Your task to perform on an android device: find snoozed emails in the gmail app Image 0: 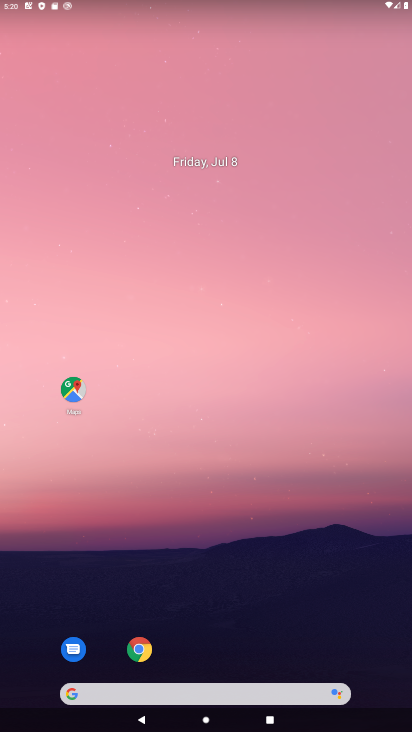
Step 0: drag from (312, 614) to (264, 3)
Your task to perform on an android device: find snoozed emails in the gmail app Image 1: 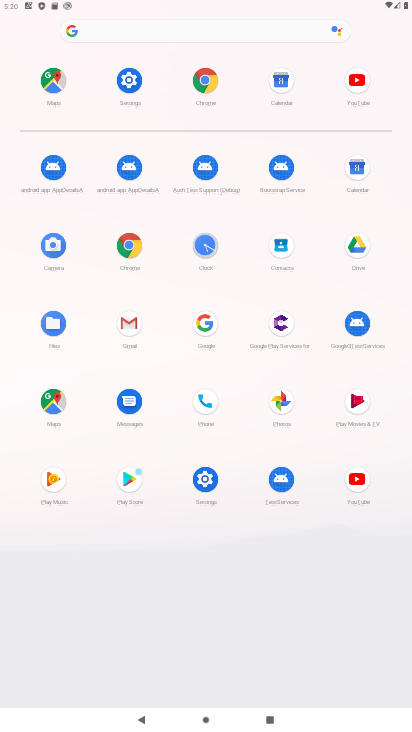
Step 1: click (135, 319)
Your task to perform on an android device: find snoozed emails in the gmail app Image 2: 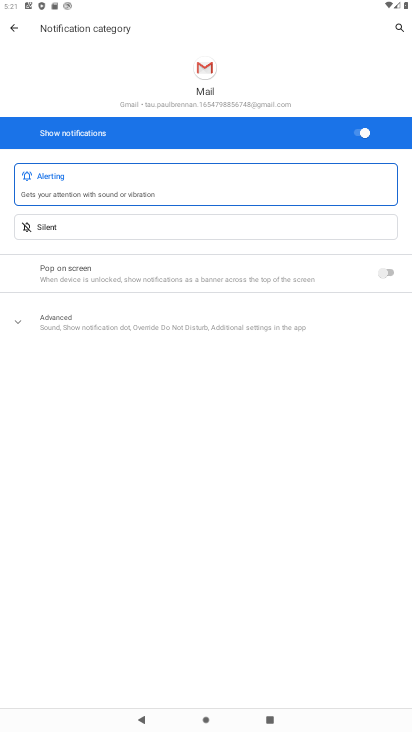
Step 2: click (13, 24)
Your task to perform on an android device: find snoozed emails in the gmail app Image 3: 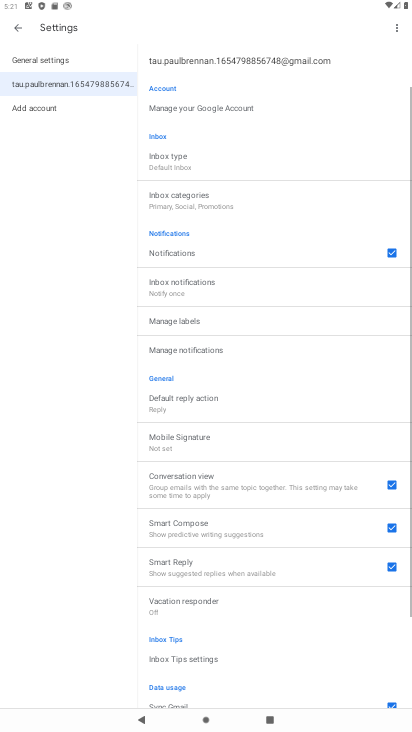
Step 3: click (13, 24)
Your task to perform on an android device: find snoozed emails in the gmail app Image 4: 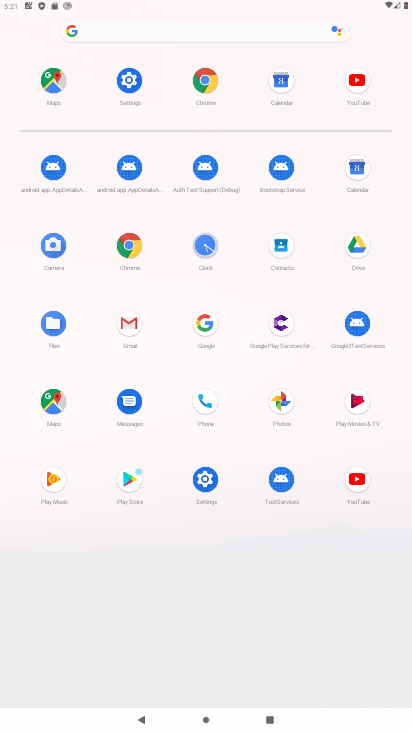
Step 4: click (136, 321)
Your task to perform on an android device: find snoozed emails in the gmail app Image 5: 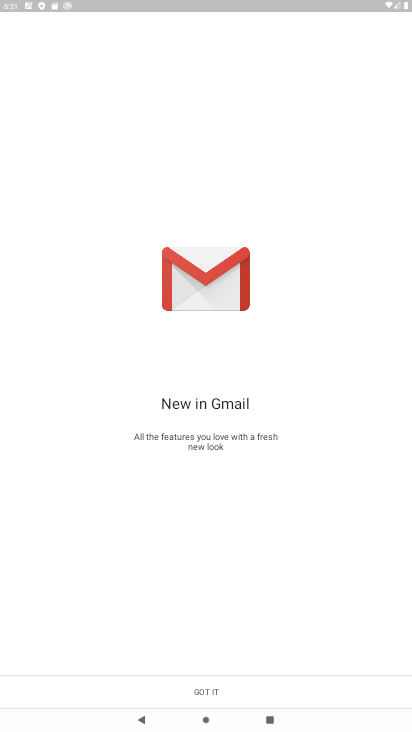
Step 5: click (209, 689)
Your task to perform on an android device: find snoozed emails in the gmail app Image 6: 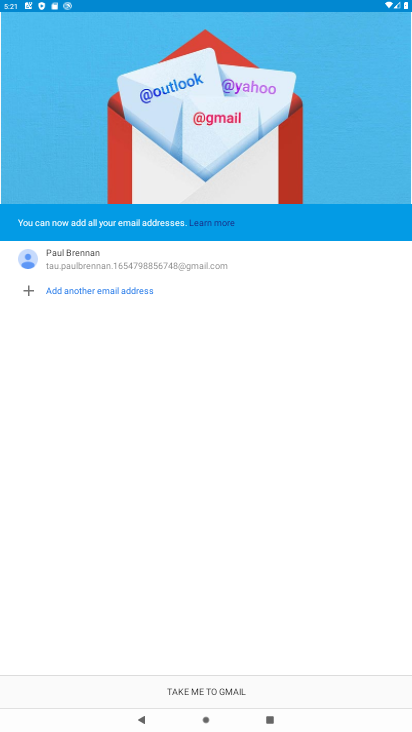
Step 6: click (181, 256)
Your task to perform on an android device: find snoozed emails in the gmail app Image 7: 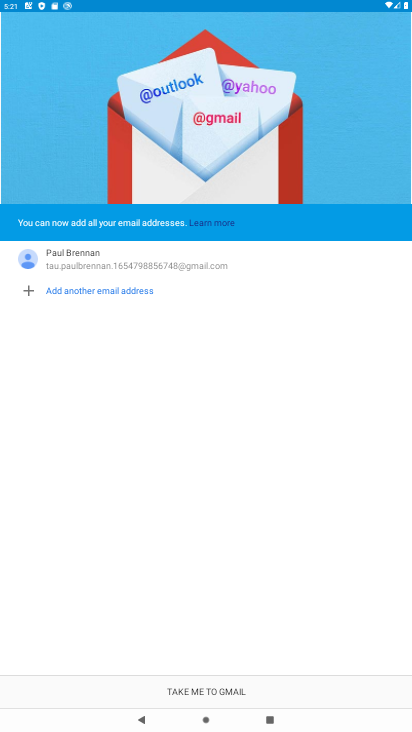
Step 7: click (182, 261)
Your task to perform on an android device: find snoozed emails in the gmail app Image 8: 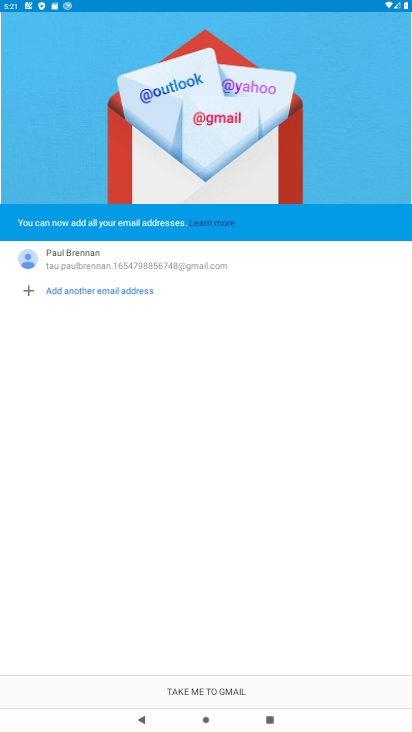
Step 8: click (219, 696)
Your task to perform on an android device: find snoozed emails in the gmail app Image 9: 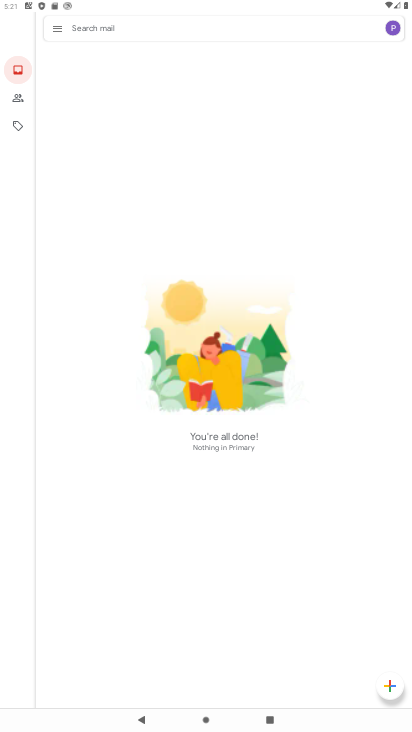
Step 9: click (59, 30)
Your task to perform on an android device: find snoozed emails in the gmail app Image 10: 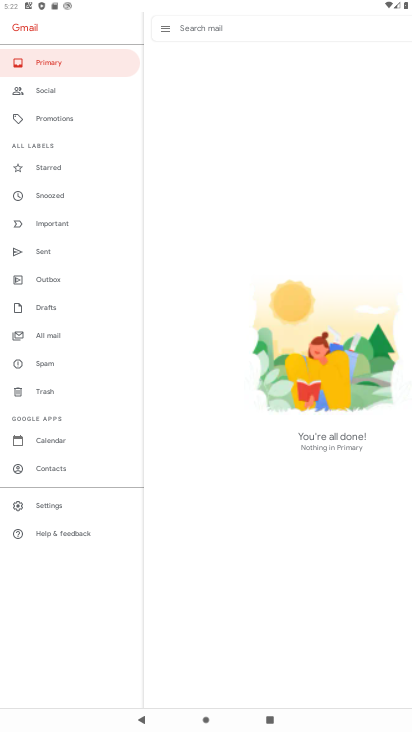
Step 10: click (54, 192)
Your task to perform on an android device: find snoozed emails in the gmail app Image 11: 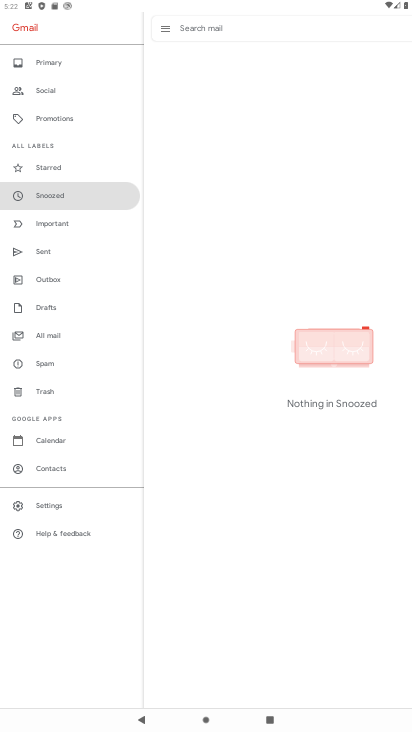
Step 11: task complete